Your task to perform on an android device: Show me popular videos on Youtube Image 0: 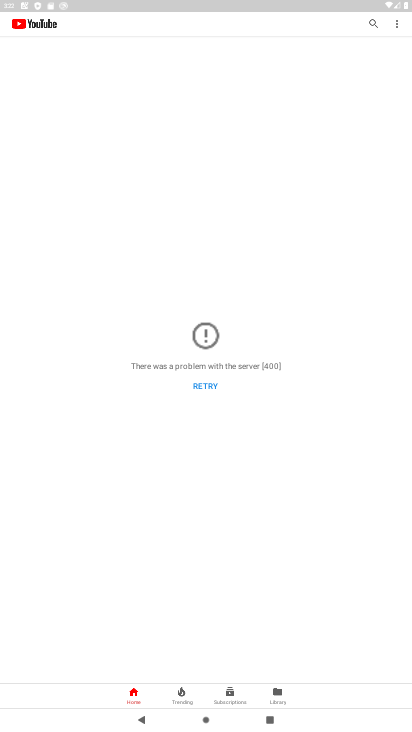
Step 0: click (274, 686)
Your task to perform on an android device: Show me popular videos on Youtube Image 1: 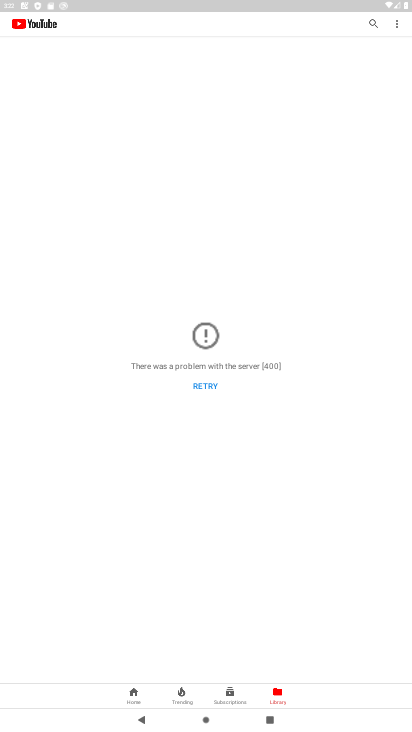
Step 1: task complete